Your task to perform on an android device: Open calendar and show me the second week of next month Image 0: 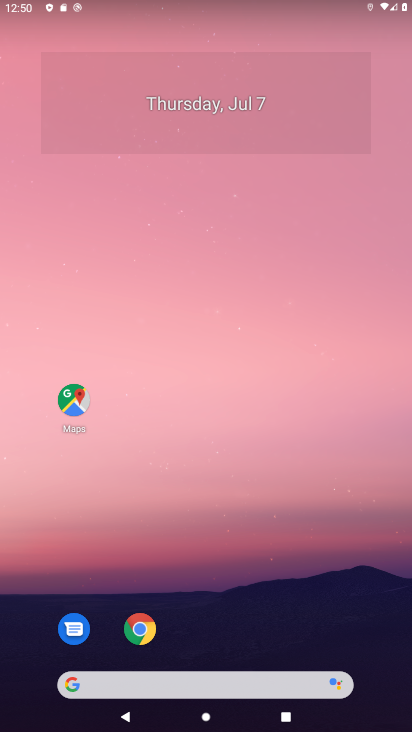
Step 0: drag from (246, 655) to (265, 140)
Your task to perform on an android device: Open calendar and show me the second week of next month Image 1: 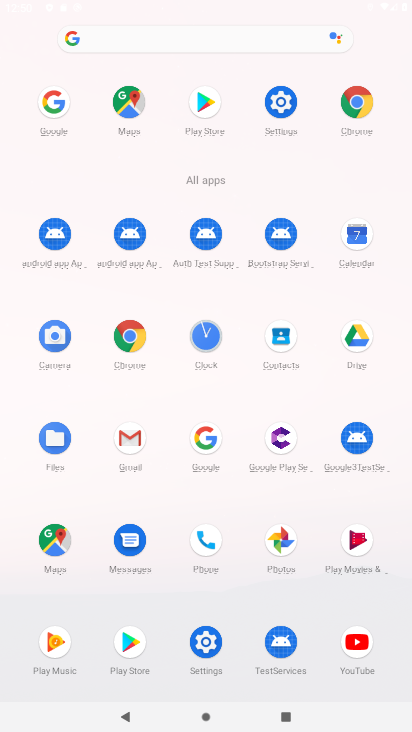
Step 1: click (354, 243)
Your task to perform on an android device: Open calendar and show me the second week of next month Image 2: 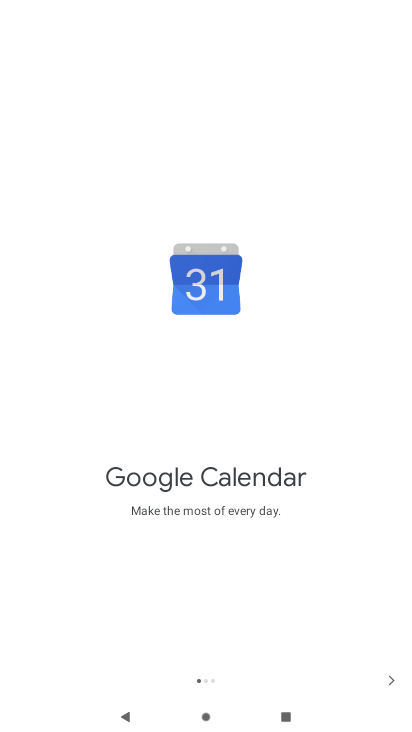
Step 2: click (390, 679)
Your task to perform on an android device: Open calendar and show me the second week of next month Image 3: 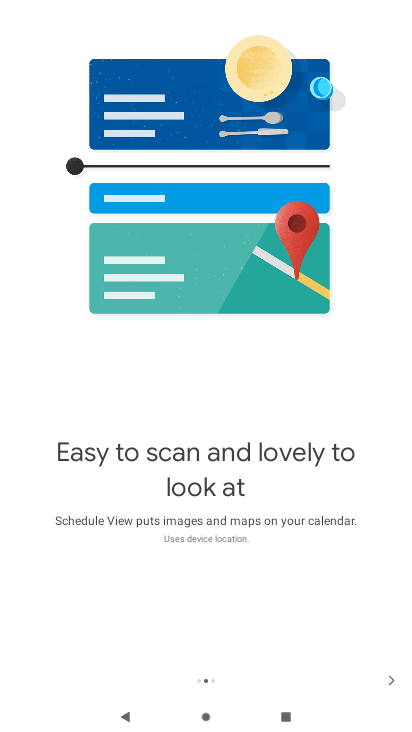
Step 3: click (388, 679)
Your task to perform on an android device: Open calendar and show me the second week of next month Image 4: 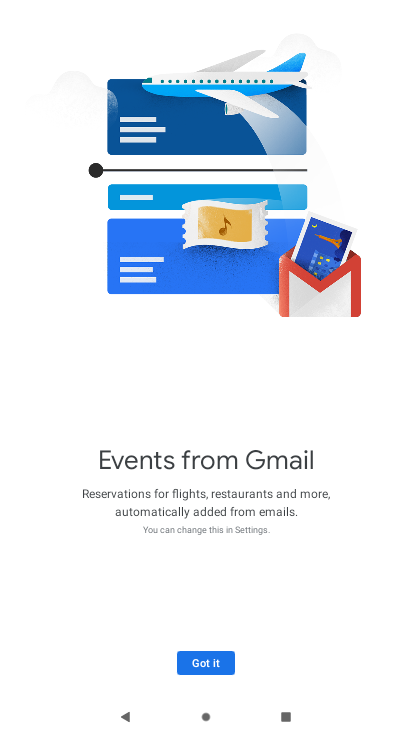
Step 4: click (217, 662)
Your task to perform on an android device: Open calendar and show me the second week of next month Image 5: 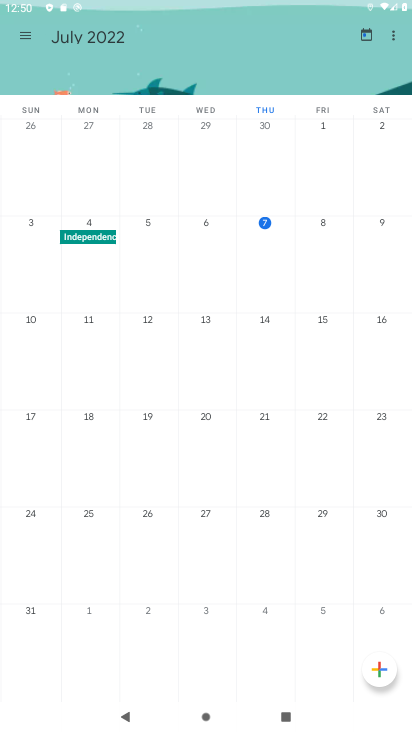
Step 5: drag from (354, 568) to (43, 511)
Your task to perform on an android device: Open calendar and show me the second week of next month Image 6: 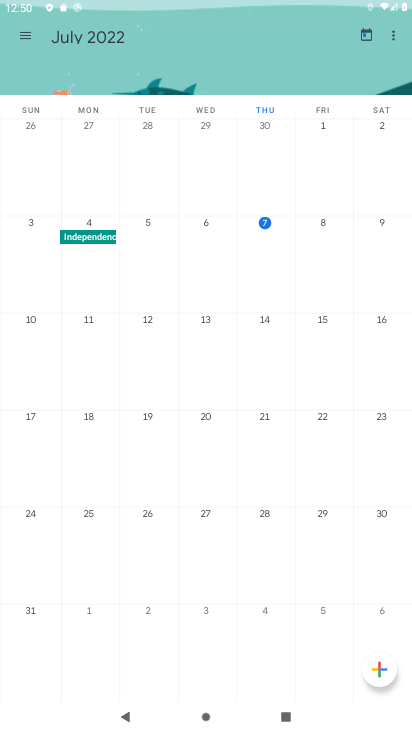
Step 6: drag from (382, 556) to (19, 603)
Your task to perform on an android device: Open calendar and show me the second week of next month Image 7: 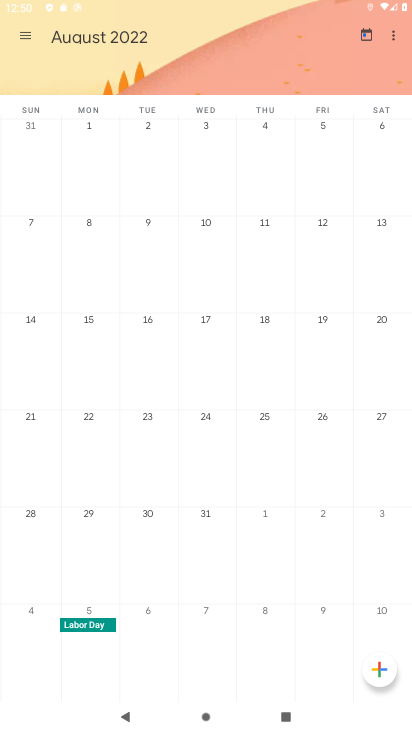
Step 7: click (318, 231)
Your task to perform on an android device: Open calendar and show me the second week of next month Image 8: 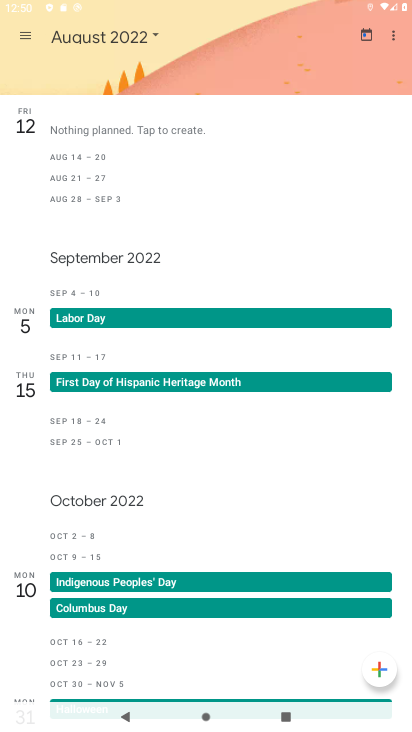
Step 8: task complete